Your task to perform on an android device: check battery use Image 0: 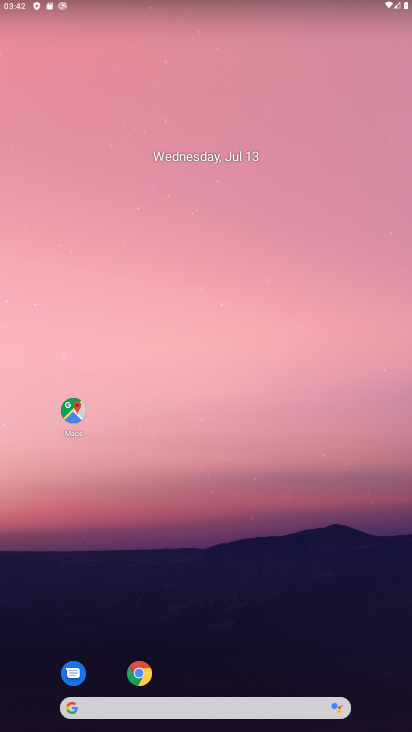
Step 0: drag from (269, 621) to (348, 87)
Your task to perform on an android device: check battery use Image 1: 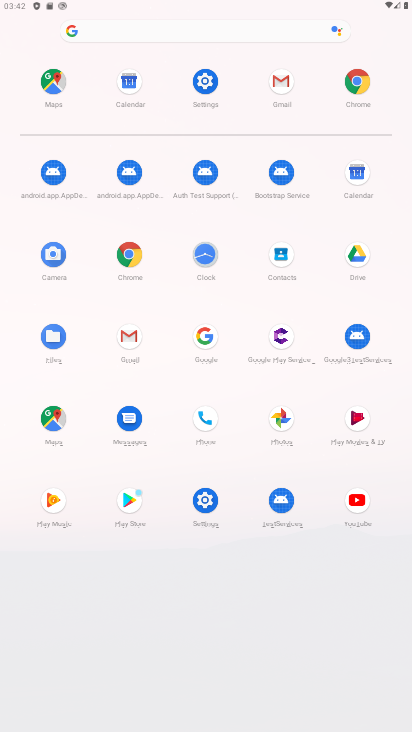
Step 1: click (202, 500)
Your task to perform on an android device: check battery use Image 2: 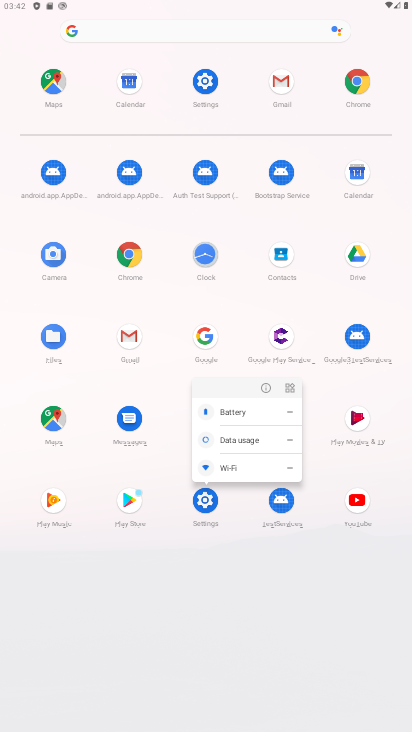
Step 2: click (202, 500)
Your task to perform on an android device: check battery use Image 3: 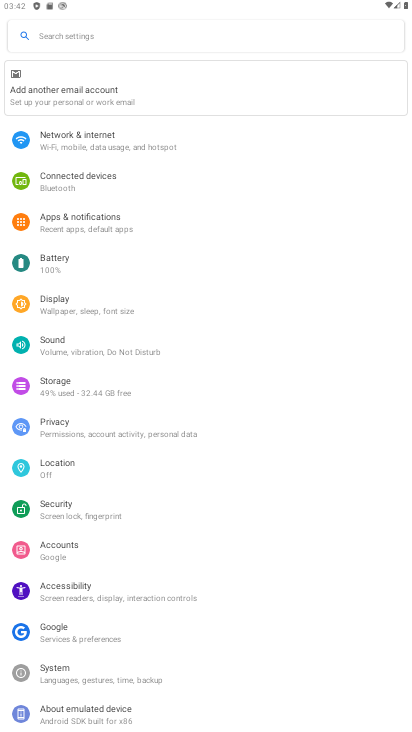
Step 3: click (56, 260)
Your task to perform on an android device: check battery use Image 4: 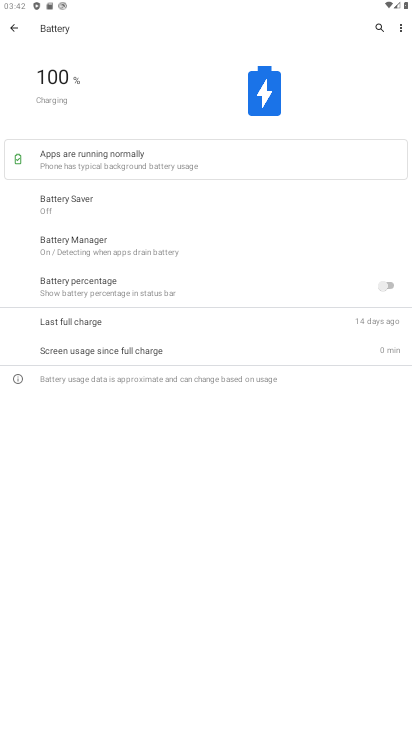
Step 4: task complete